Your task to perform on an android device: Open Google Chrome and click the shortcut for Amazon.com Image 0: 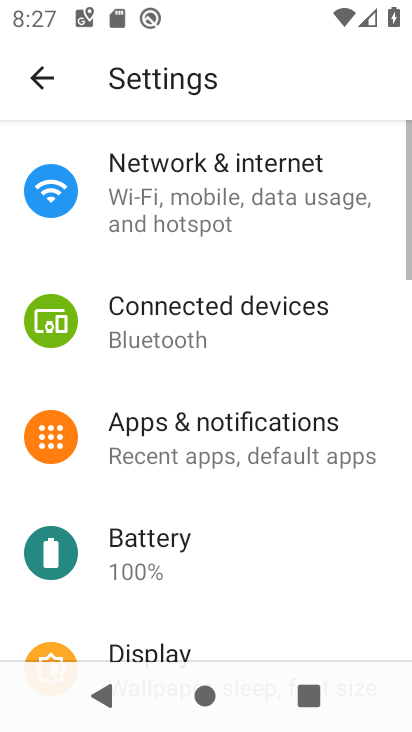
Step 0: press back button
Your task to perform on an android device: Open Google Chrome and click the shortcut for Amazon.com Image 1: 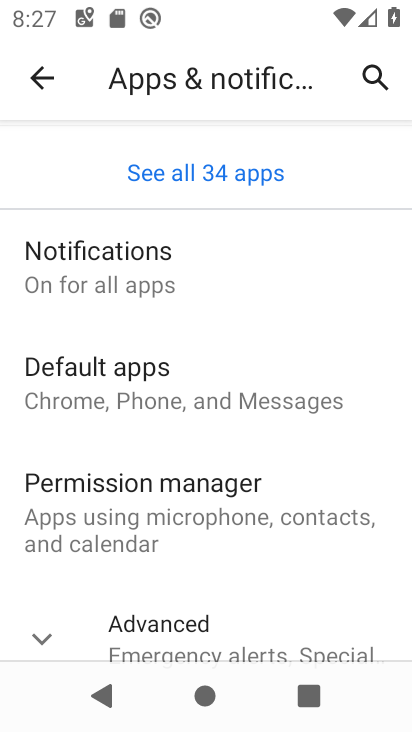
Step 1: press back button
Your task to perform on an android device: Open Google Chrome and click the shortcut for Amazon.com Image 2: 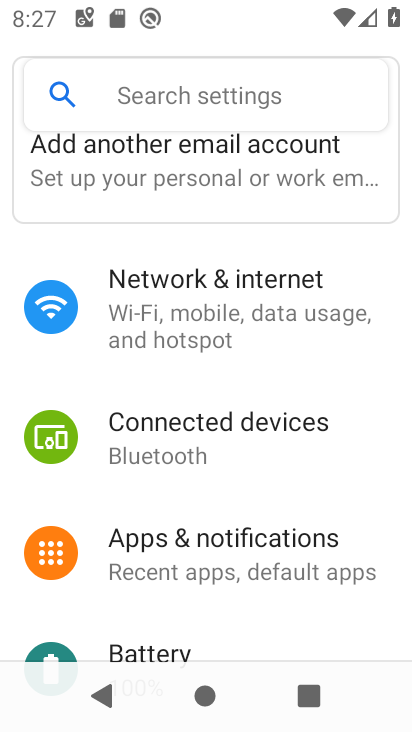
Step 2: press back button
Your task to perform on an android device: Open Google Chrome and click the shortcut for Amazon.com Image 3: 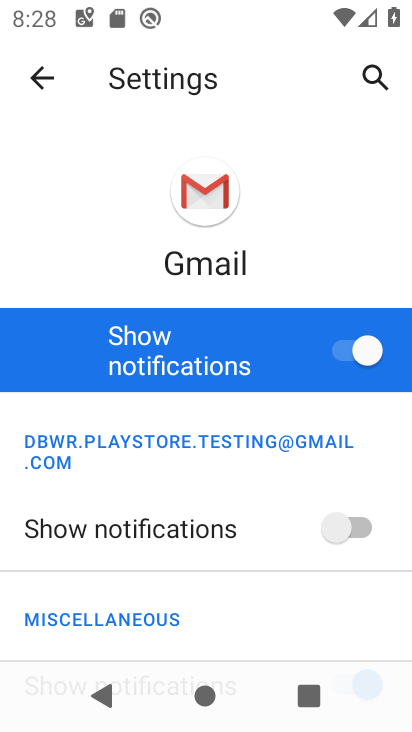
Step 3: press back button
Your task to perform on an android device: Open Google Chrome and click the shortcut for Amazon.com Image 4: 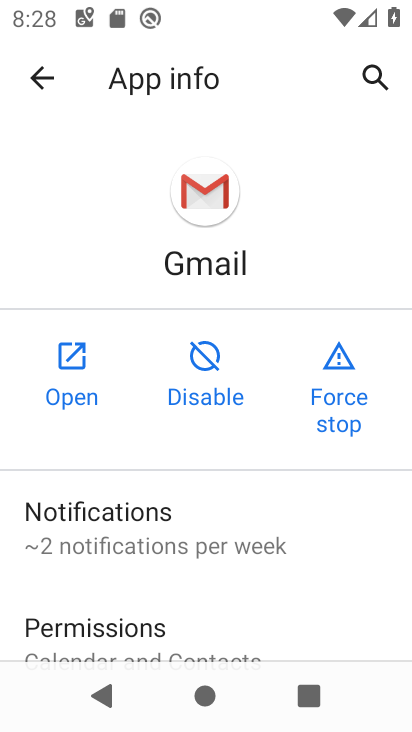
Step 4: press home button
Your task to perform on an android device: Open Google Chrome and click the shortcut for Amazon.com Image 5: 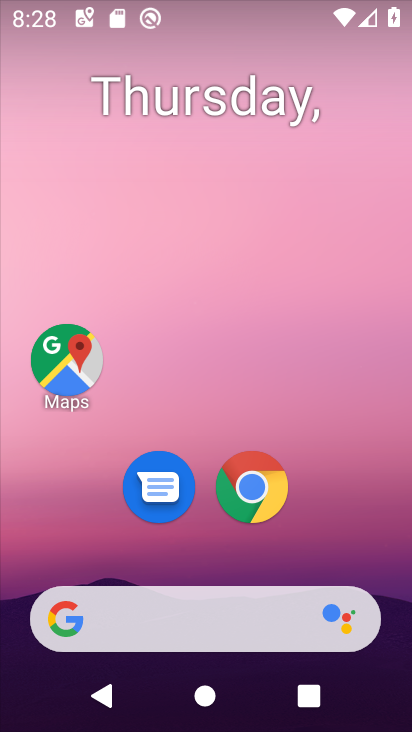
Step 5: click (254, 488)
Your task to perform on an android device: Open Google Chrome and click the shortcut for Amazon.com Image 6: 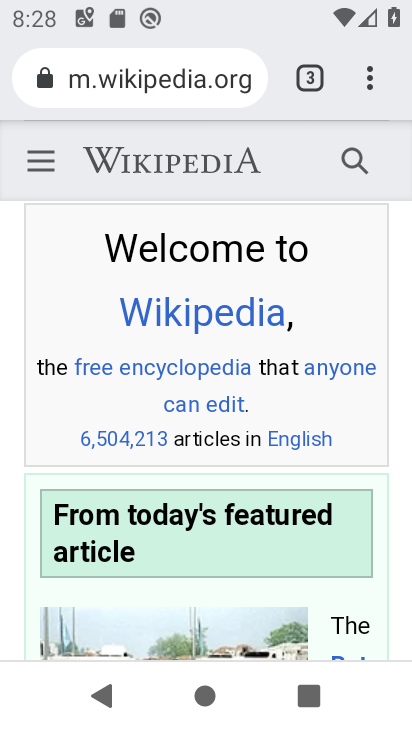
Step 6: click (309, 72)
Your task to perform on an android device: Open Google Chrome and click the shortcut for Amazon.com Image 7: 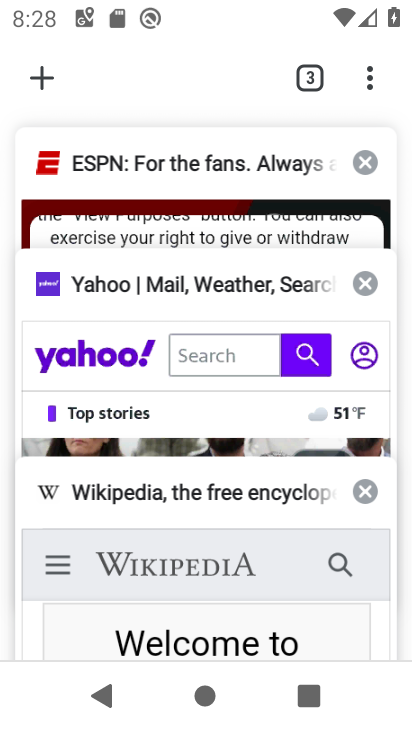
Step 7: click (43, 70)
Your task to perform on an android device: Open Google Chrome and click the shortcut for Amazon.com Image 8: 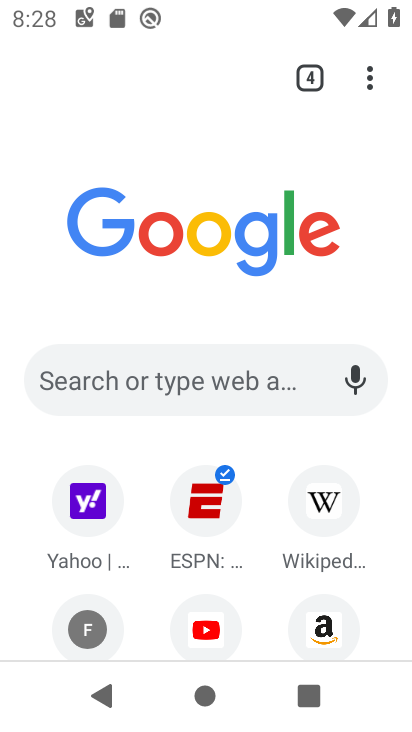
Step 8: click (328, 617)
Your task to perform on an android device: Open Google Chrome and click the shortcut for Amazon.com Image 9: 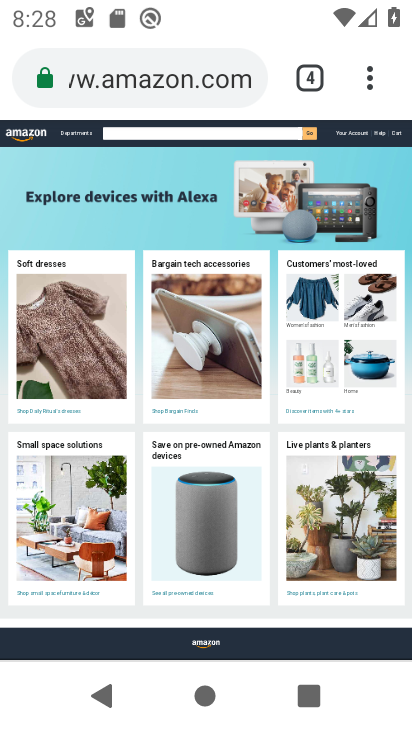
Step 9: task complete